Your task to perform on an android device: Open Youtube and go to "Your channel" Image 0: 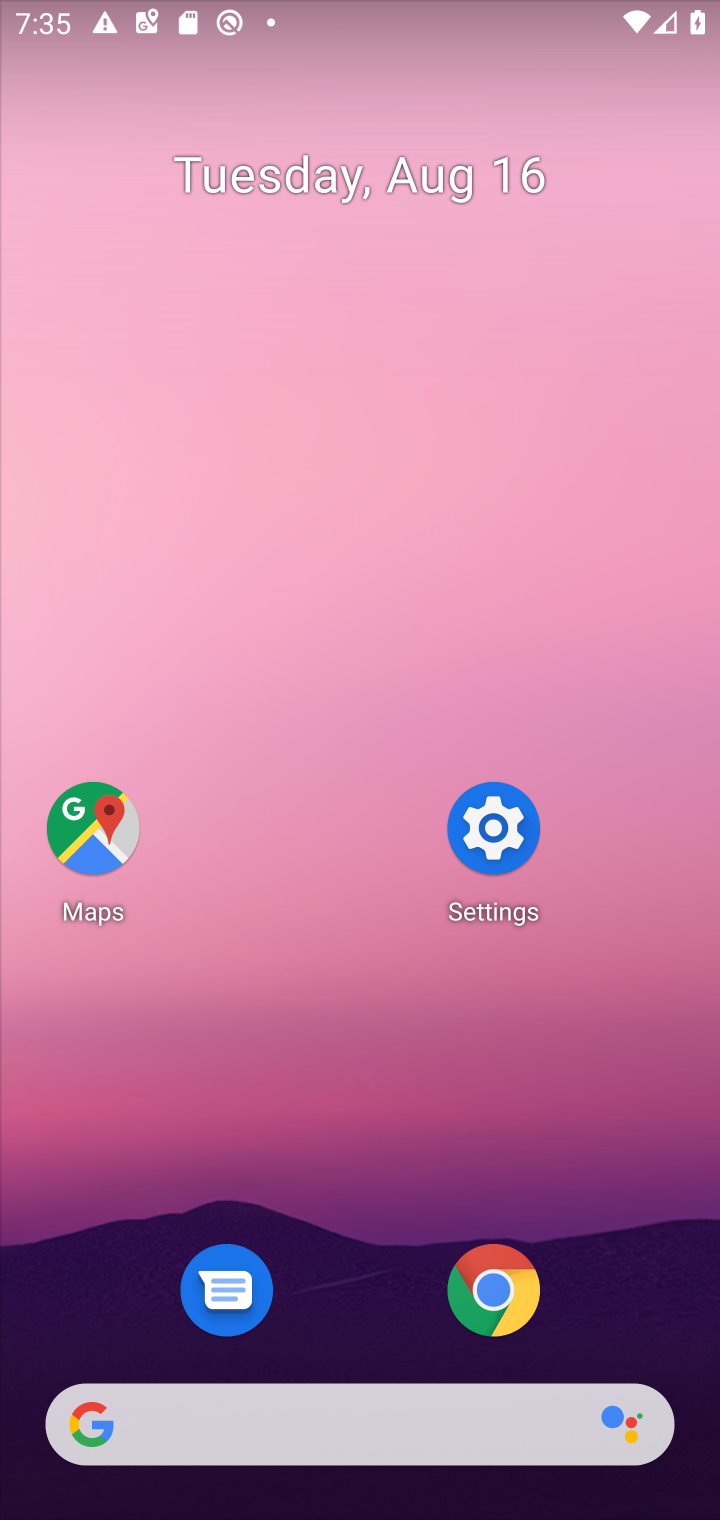
Step 0: press home button
Your task to perform on an android device: Open Youtube and go to "Your channel" Image 1: 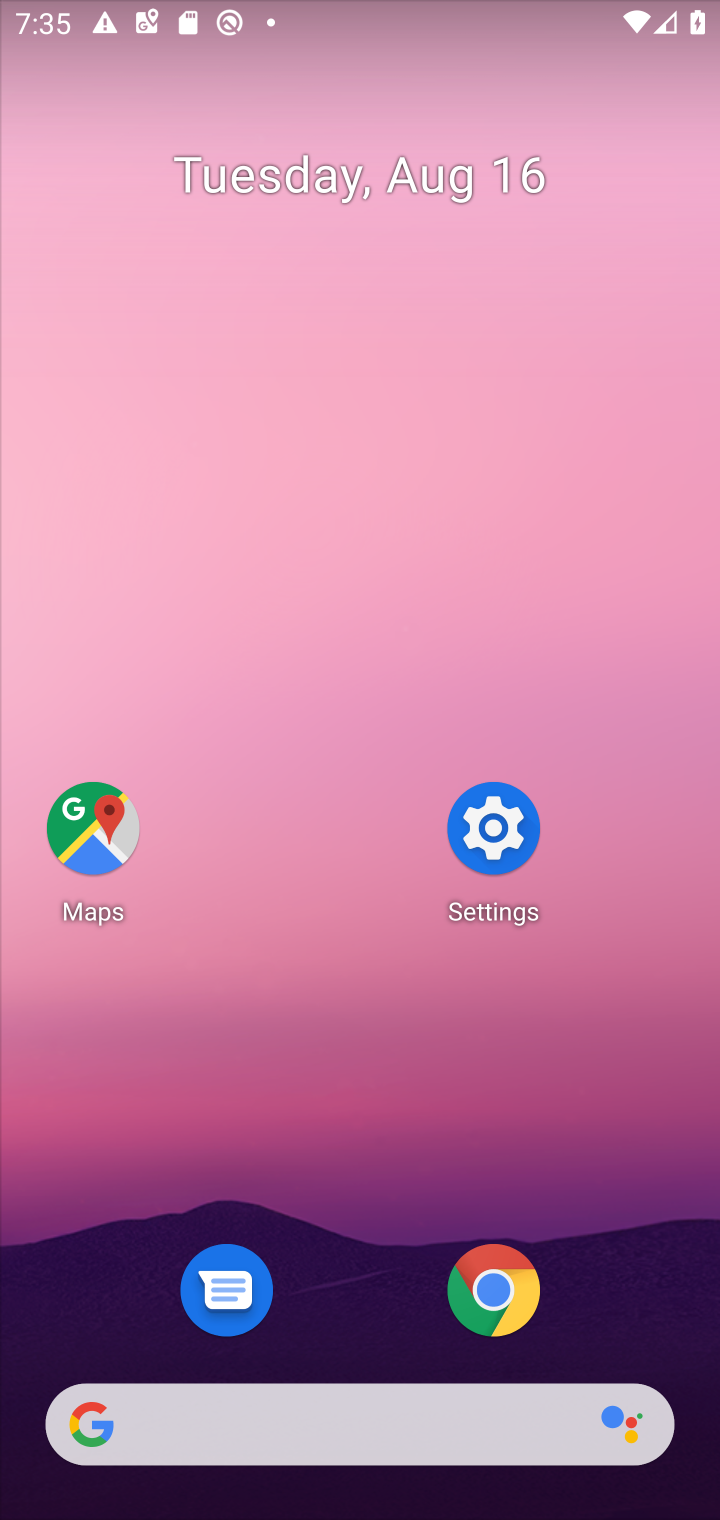
Step 1: drag from (381, 1157) to (532, 156)
Your task to perform on an android device: Open Youtube and go to "Your channel" Image 2: 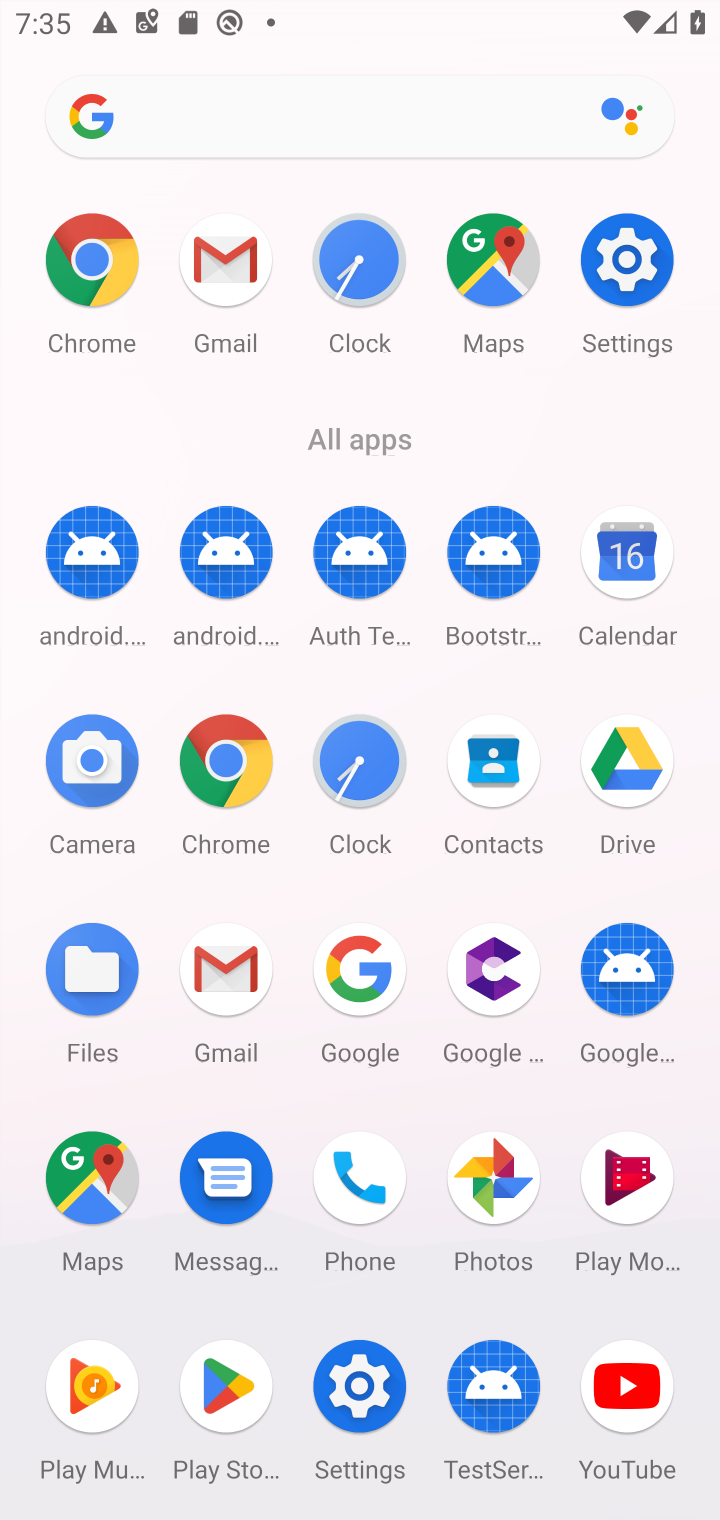
Step 2: click (620, 1397)
Your task to perform on an android device: Open Youtube and go to "Your channel" Image 3: 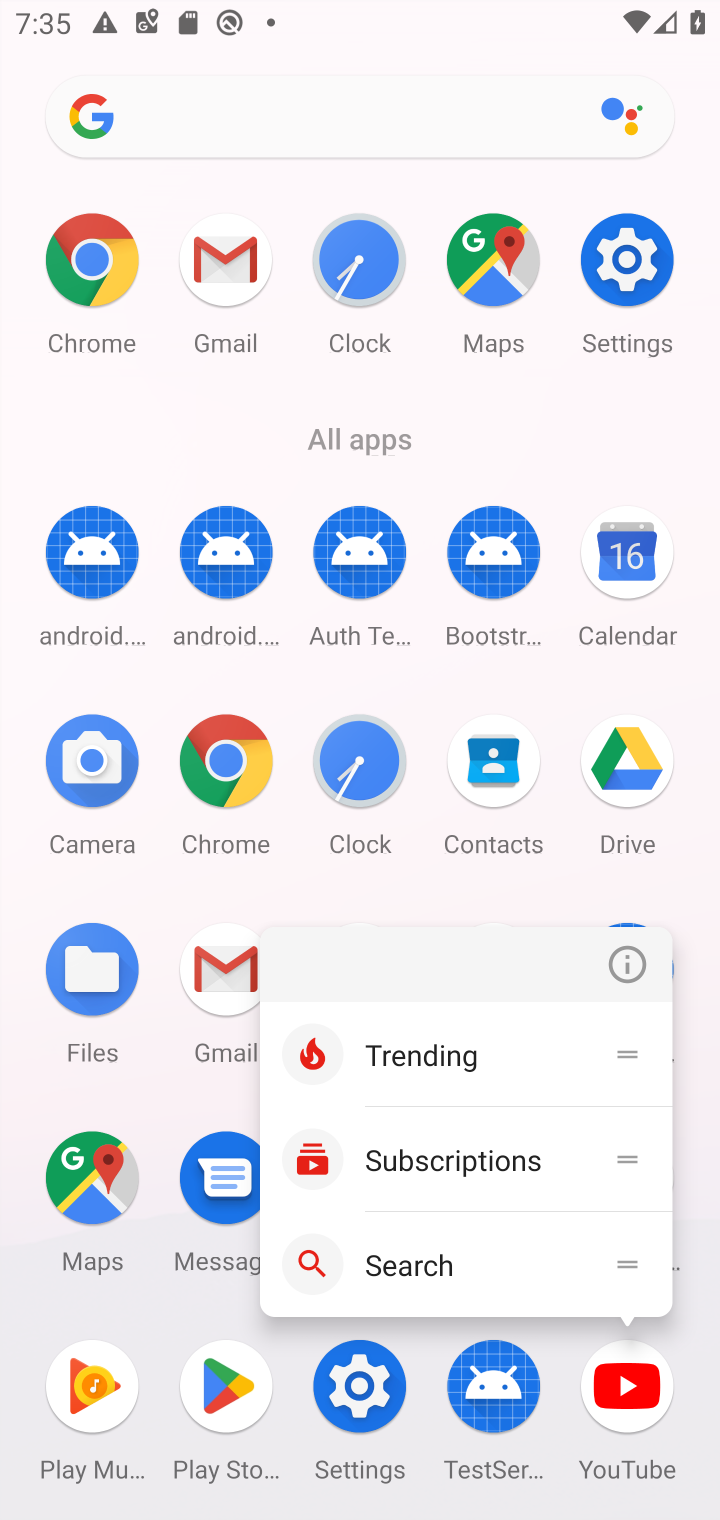
Step 3: click (633, 1384)
Your task to perform on an android device: Open Youtube and go to "Your channel" Image 4: 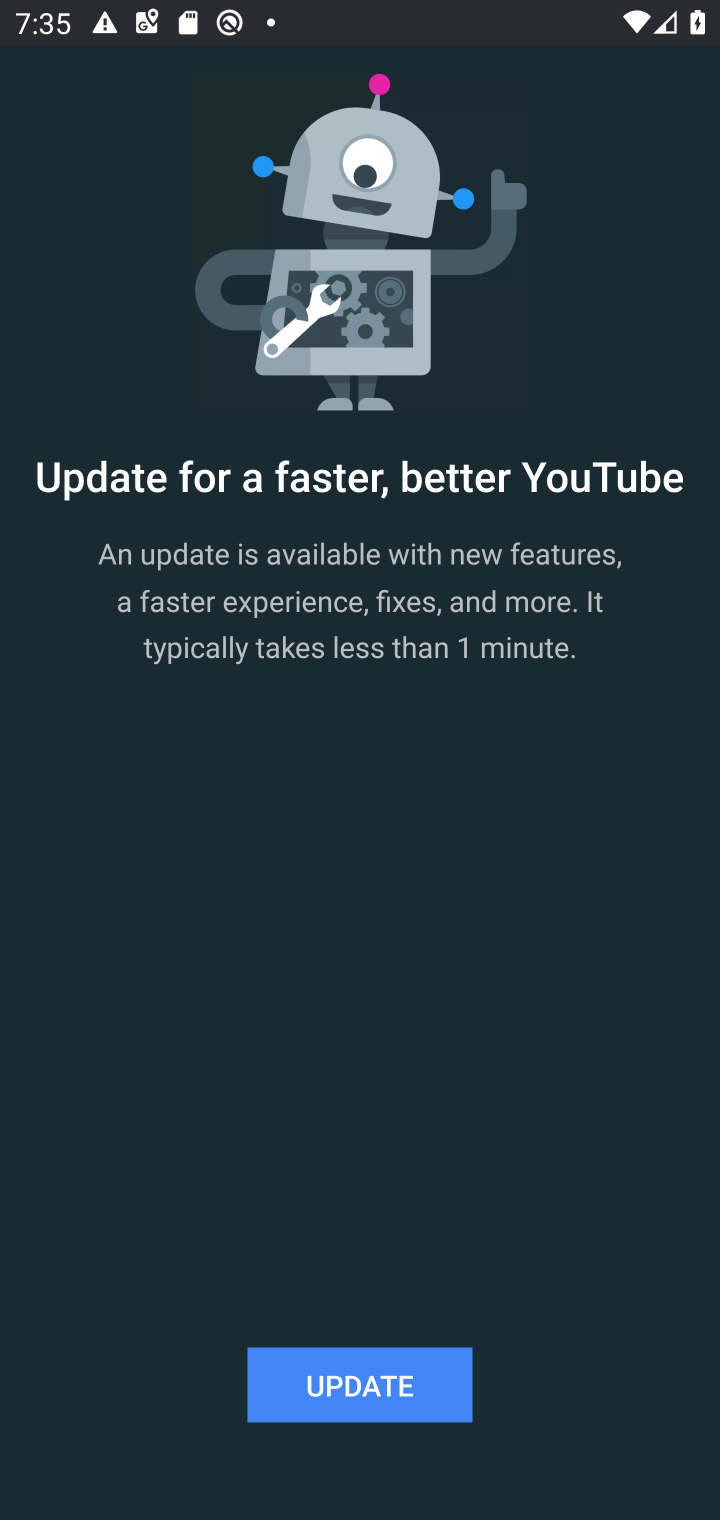
Step 4: click (372, 1386)
Your task to perform on an android device: Open Youtube and go to "Your channel" Image 5: 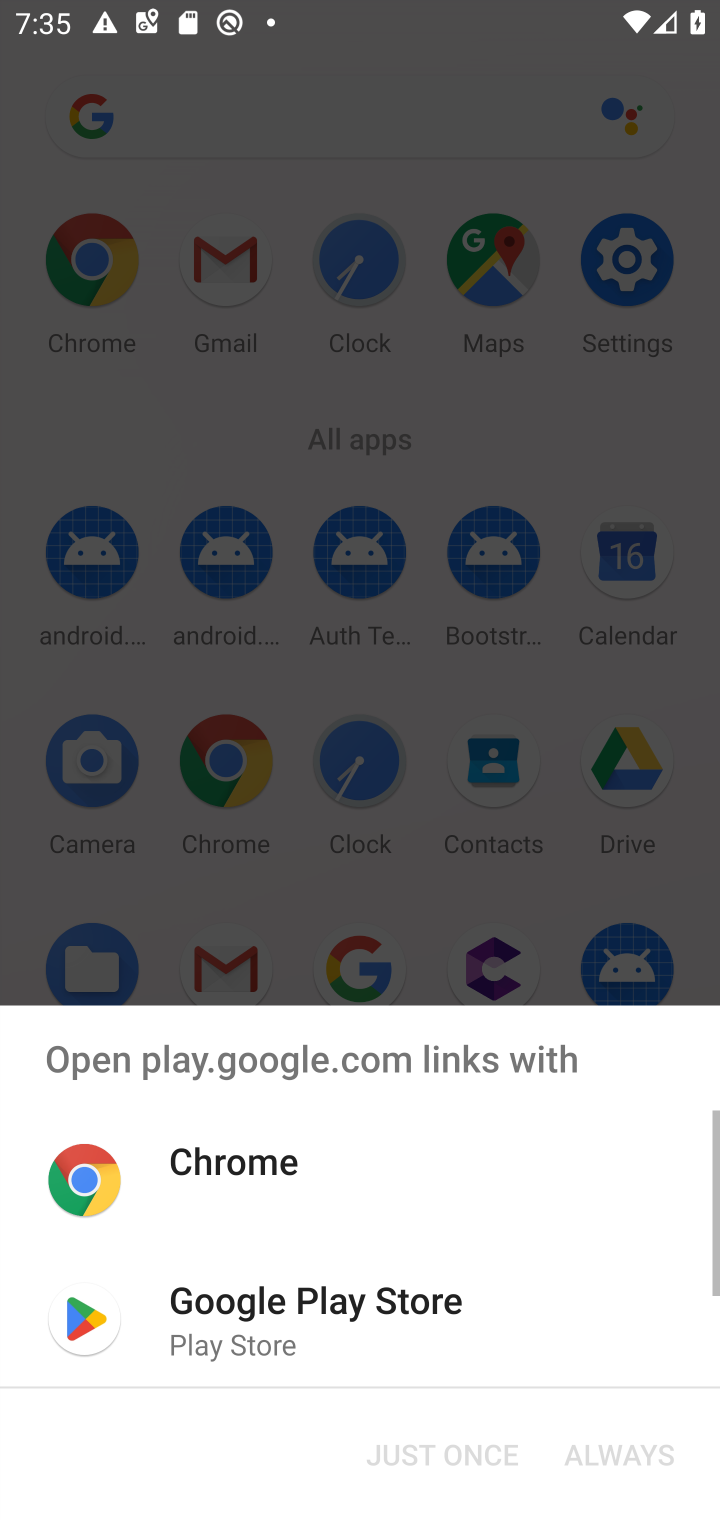
Step 5: click (279, 1284)
Your task to perform on an android device: Open Youtube and go to "Your channel" Image 6: 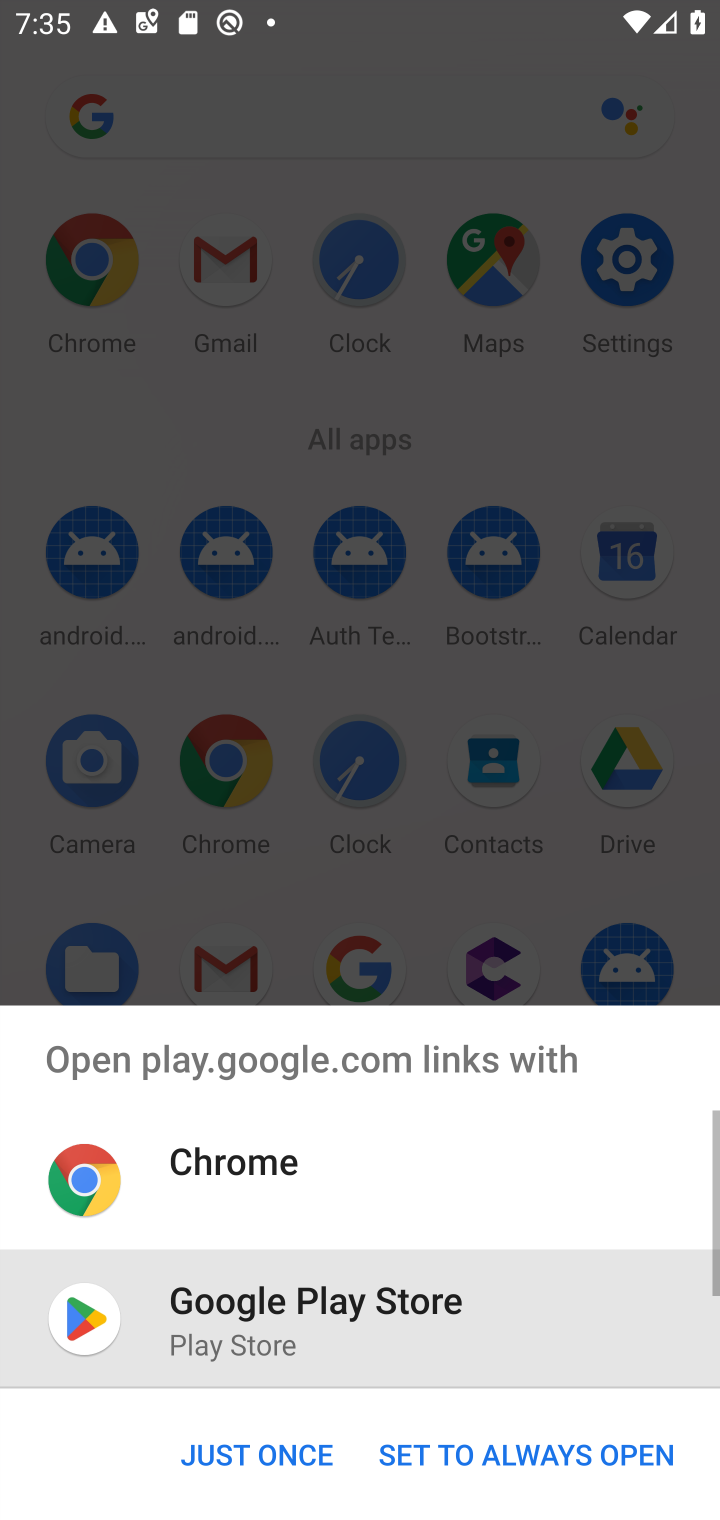
Step 6: click (266, 1454)
Your task to perform on an android device: Open Youtube and go to "Your channel" Image 7: 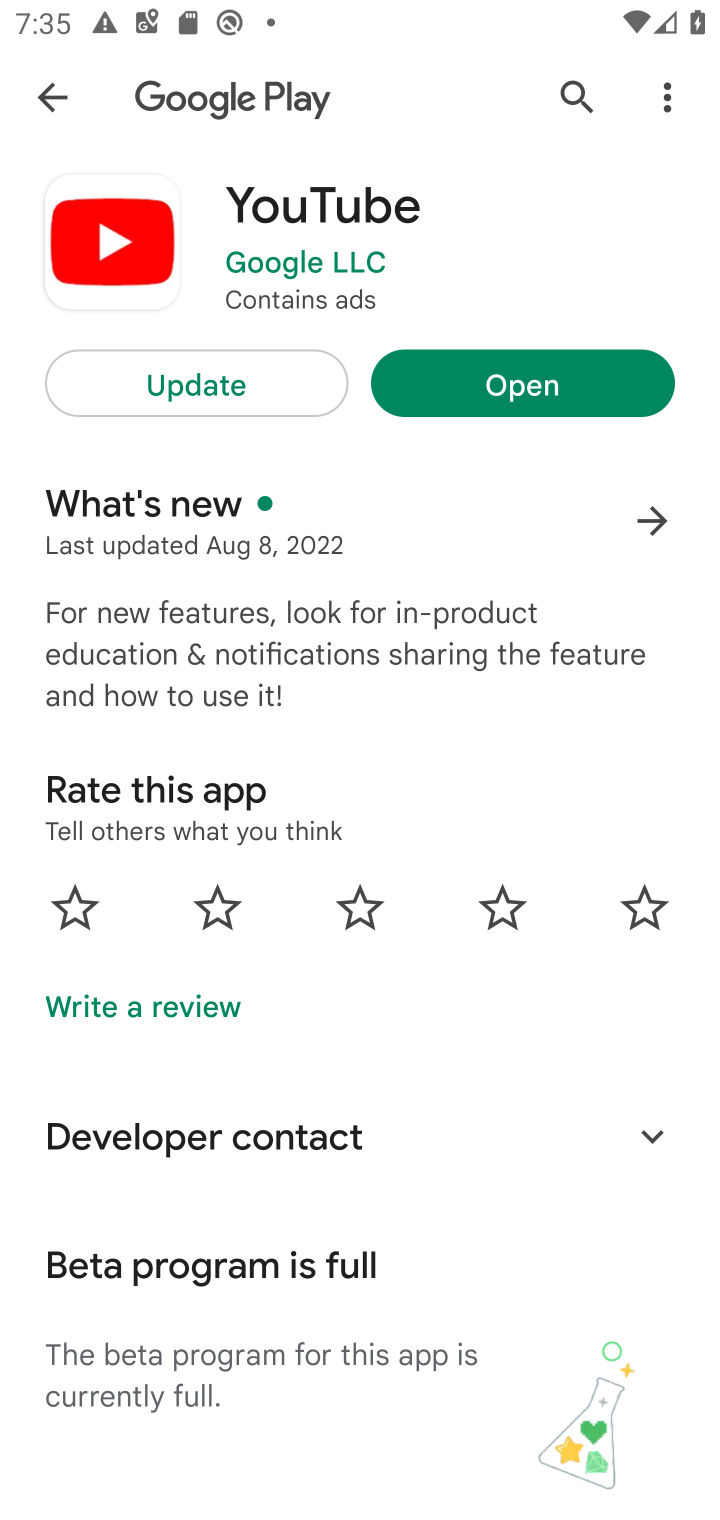
Step 7: click (187, 399)
Your task to perform on an android device: Open Youtube and go to "Your channel" Image 8: 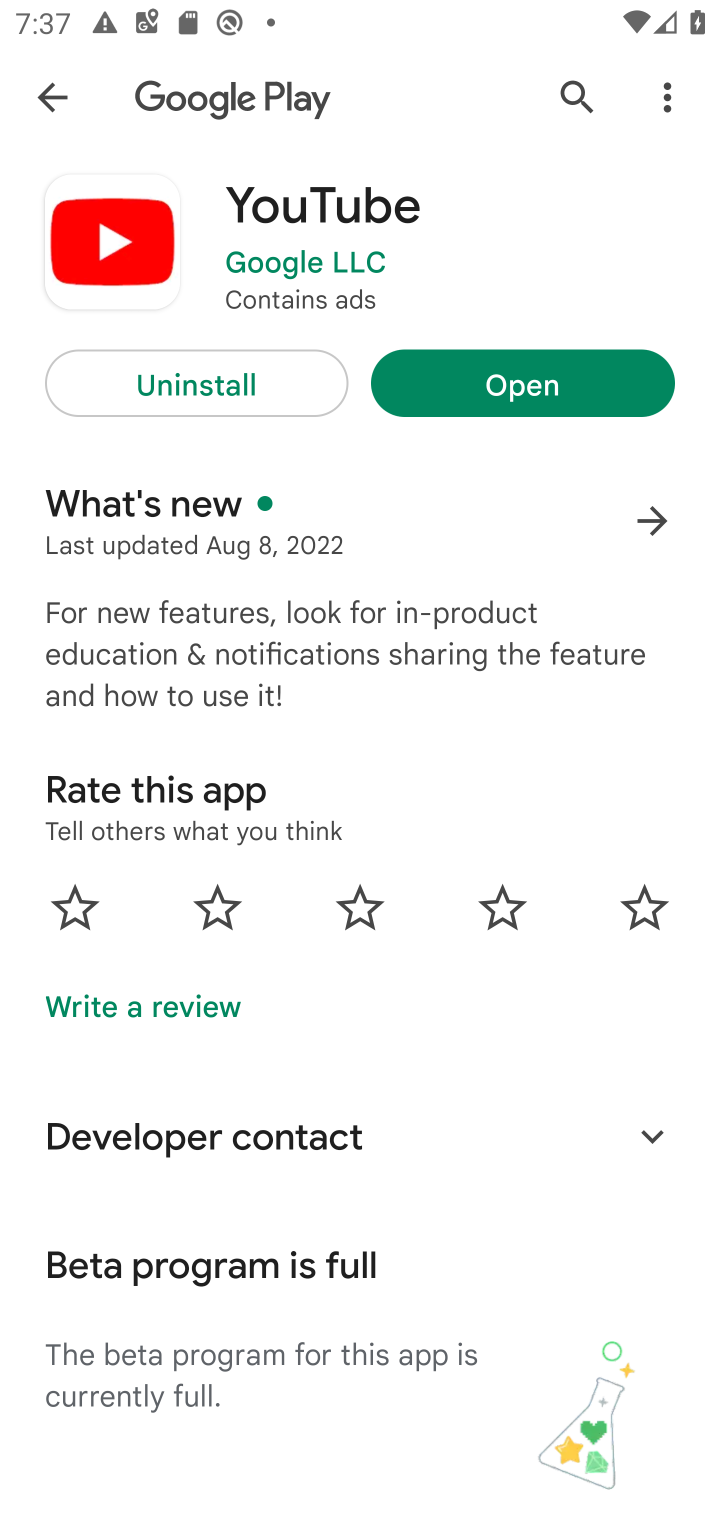
Step 8: click (502, 398)
Your task to perform on an android device: Open Youtube and go to "Your channel" Image 9: 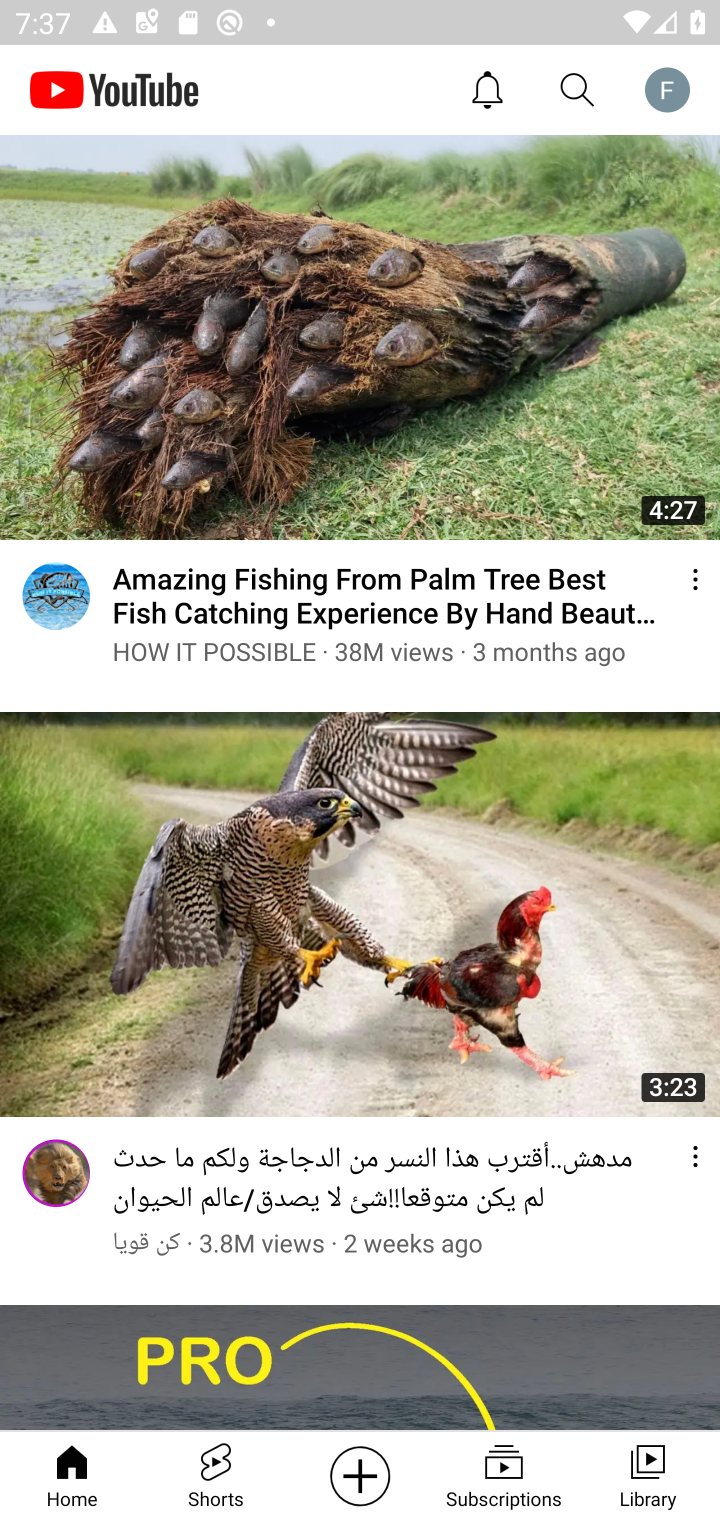
Step 9: click (659, 98)
Your task to perform on an android device: Open Youtube and go to "Your channel" Image 10: 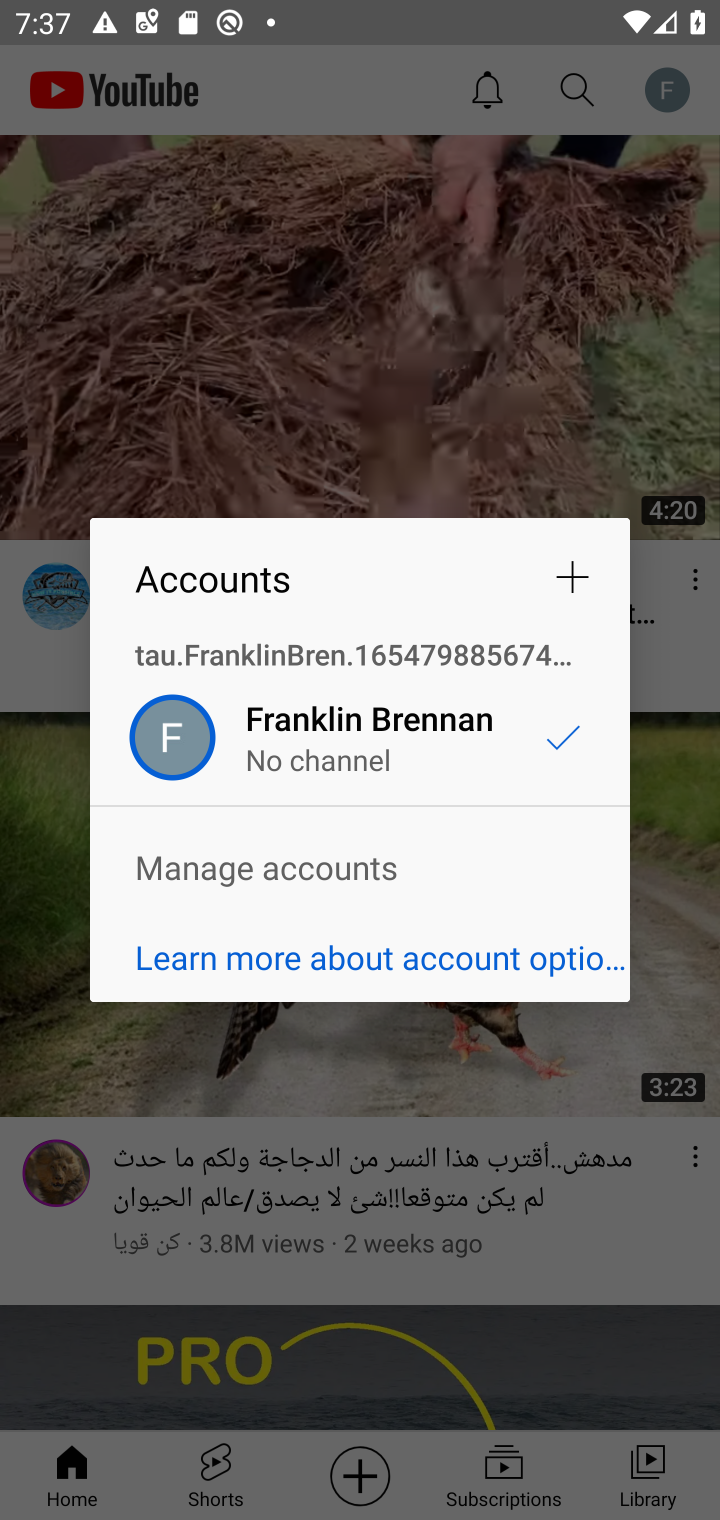
Step 10: click (396, 620)
Your task to perform on an android device: Open Youtube and go to "Your channel" Image 11: 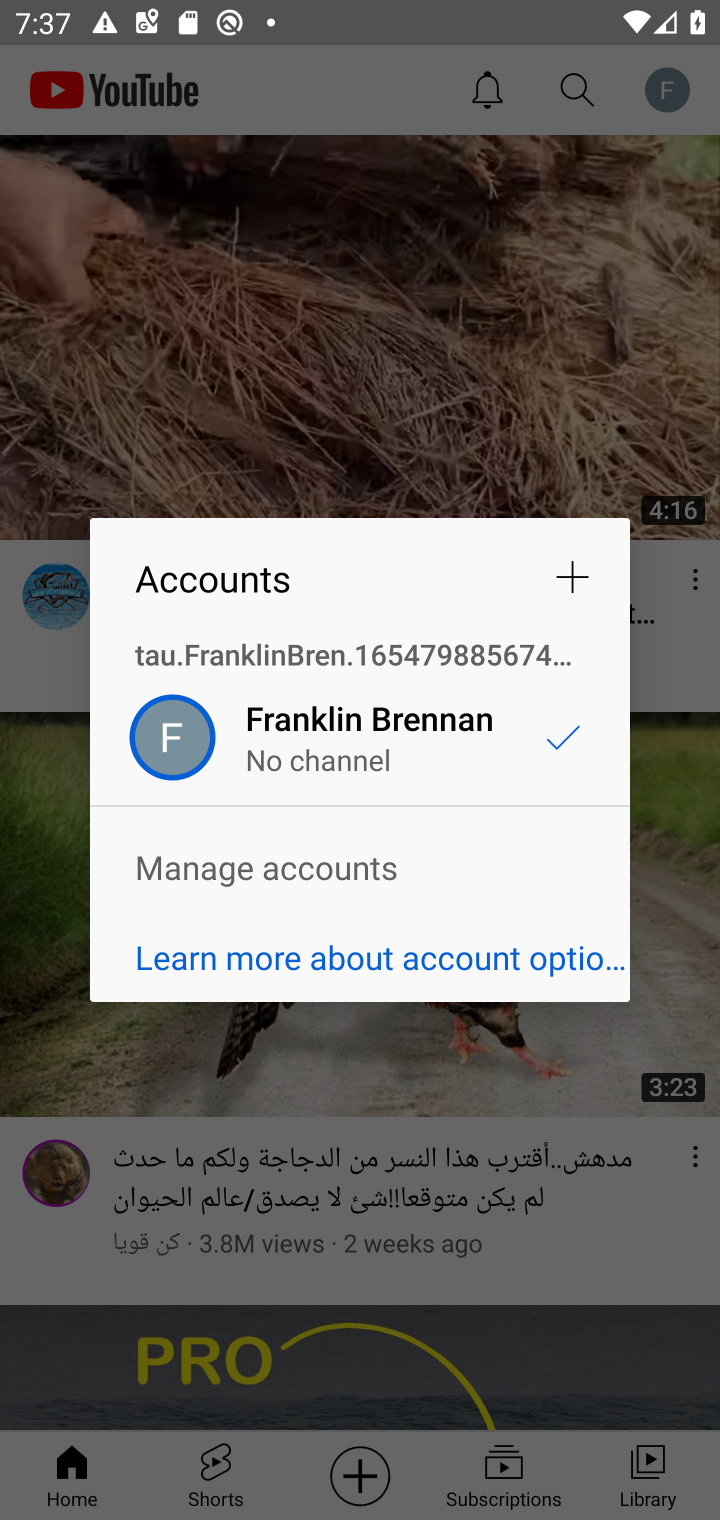
Step 11: click (298, 85)
Your task to perform on an android device: Open Youtube and go to "Your channel" Image 12: 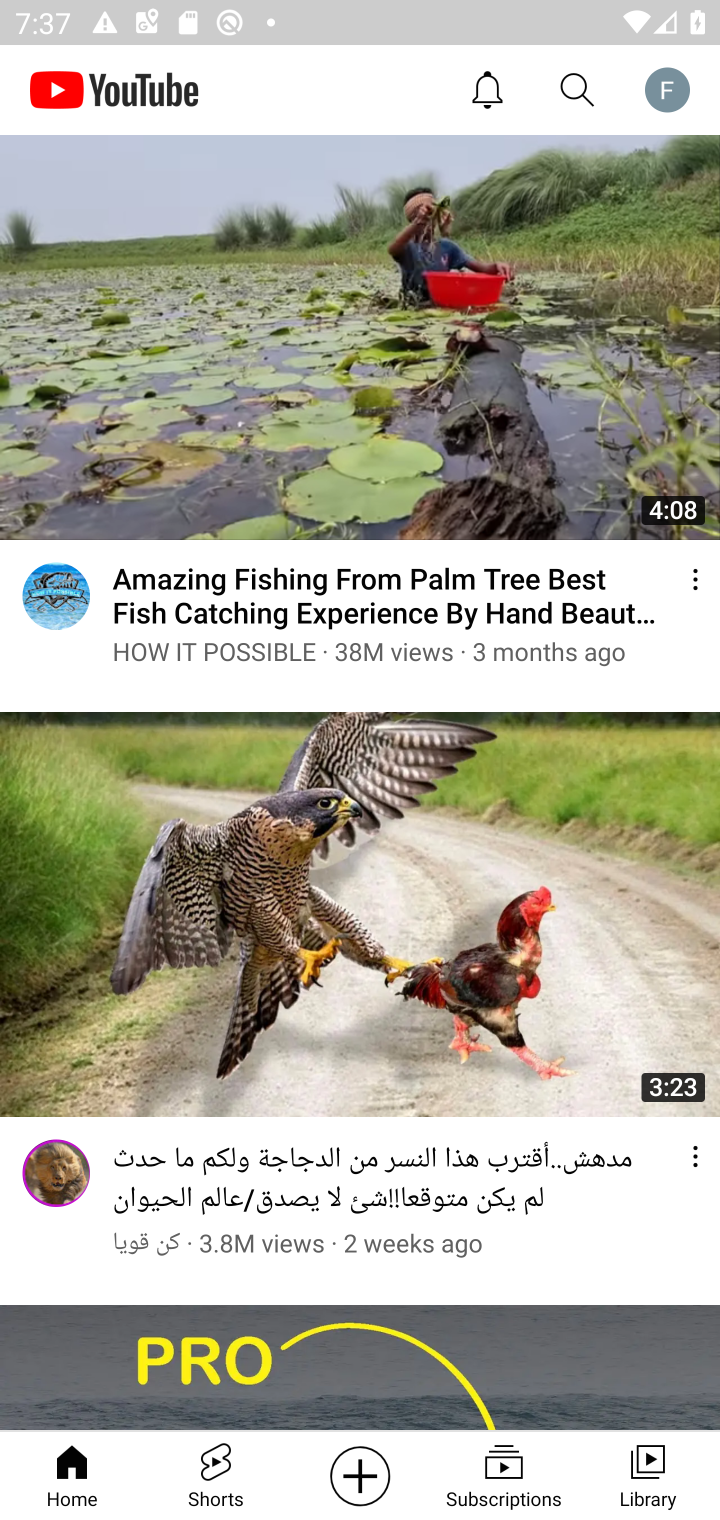
Step 12: task complete